Your task to perform on an android device: turn off translation in the chrome app Image 0: 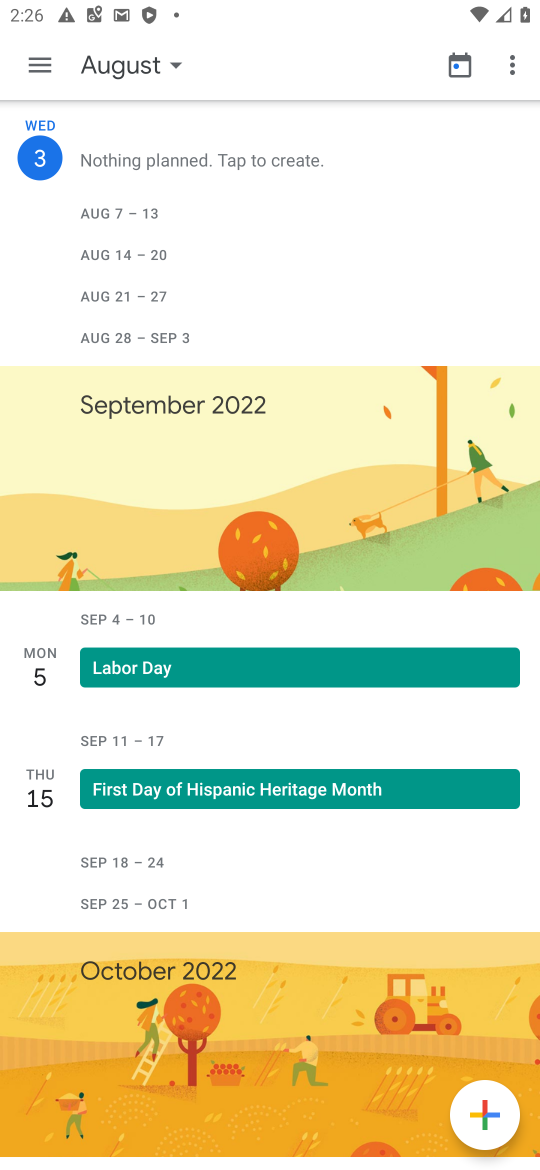
Step 0: press home button
Your task to perform on an android device: turn off translation in the chrome app Image 1: 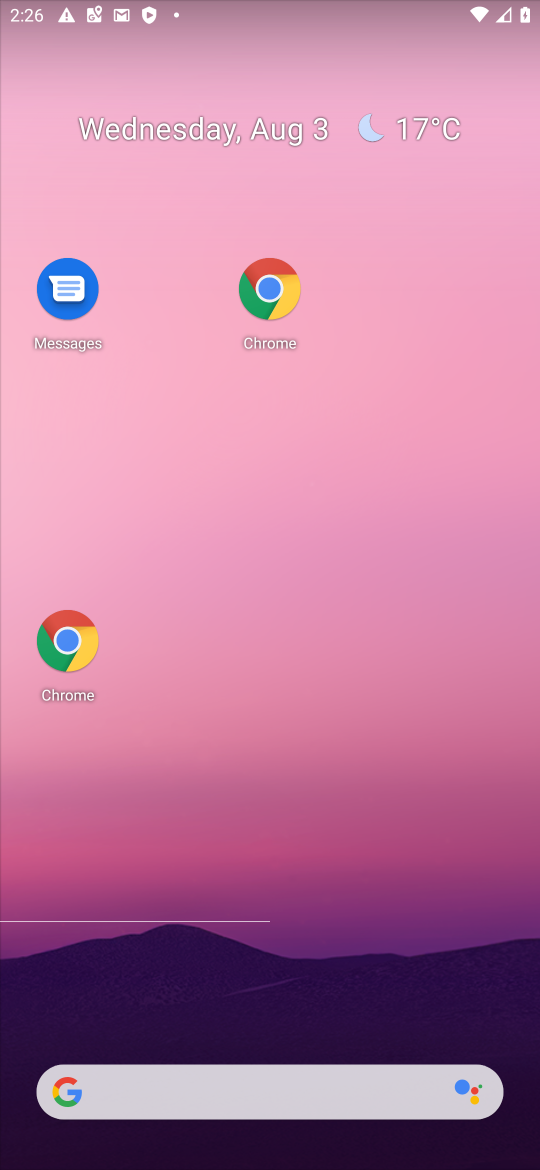
Step 1: click (260, 305)
Your task to perform on an android device: turn off translation in the chrome app Image 2: 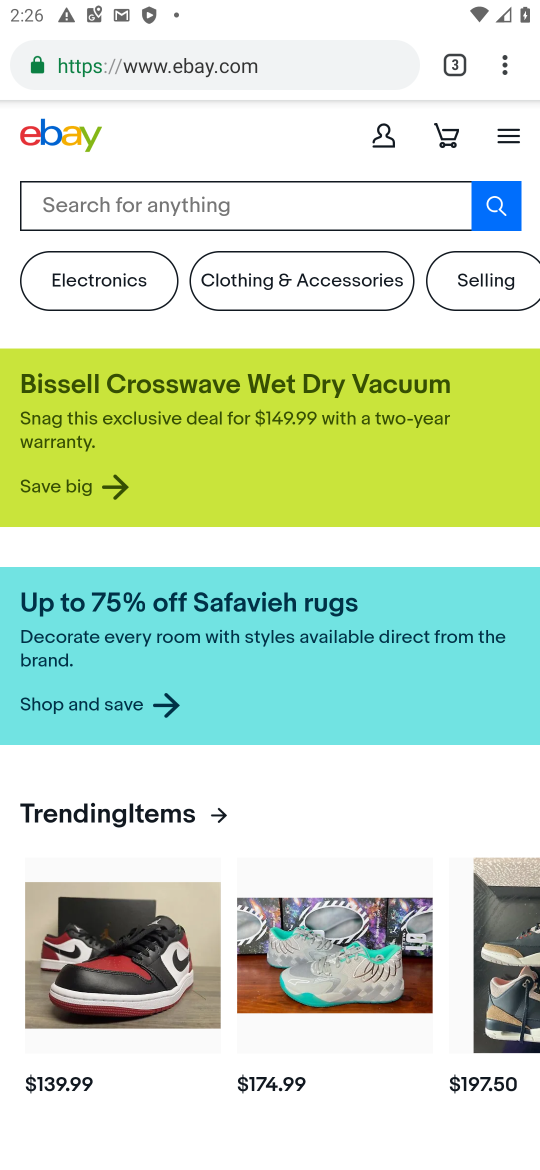
Step 2: click (507, 61)
Your task to perform on an android device: turn off translation in the chrome app Image 3: 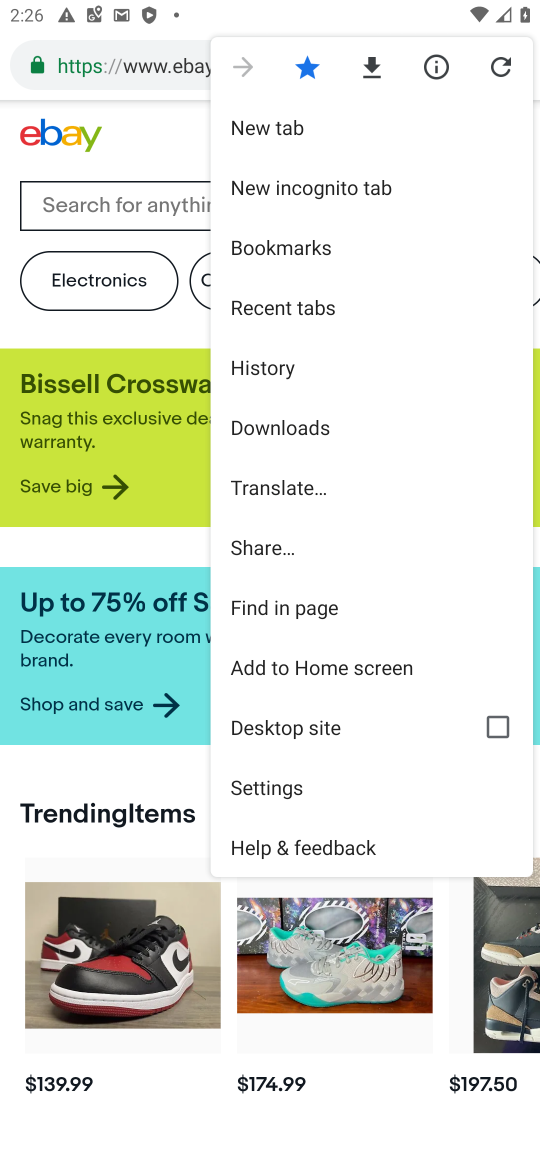
Step 3: click (308, 796)
Your task to perform on an android device: turn off translation in the chrome app Image 4: 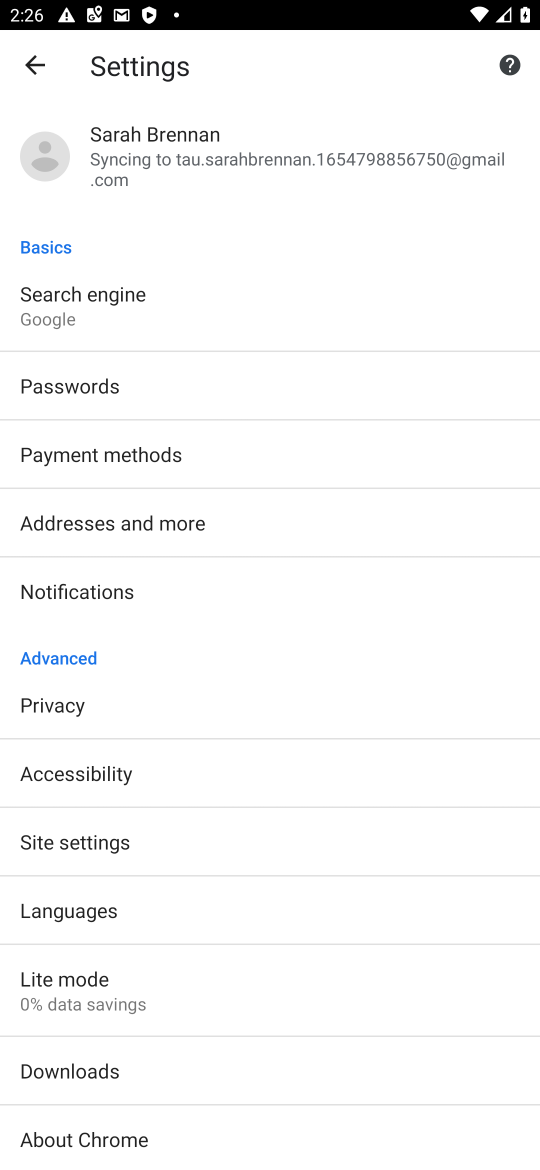
Step 4: click (275, 829)
Your task to perform on an android device: turn off translation in the chrome app Image 5: 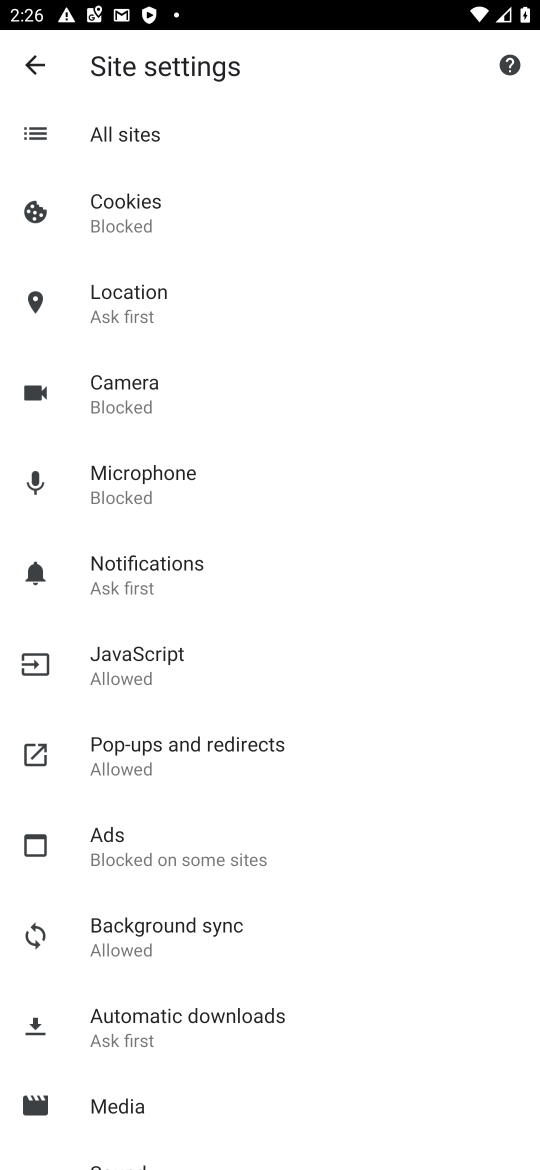
Step 5: task complete